Your task to perform on an android device: Open eBay Image 0: 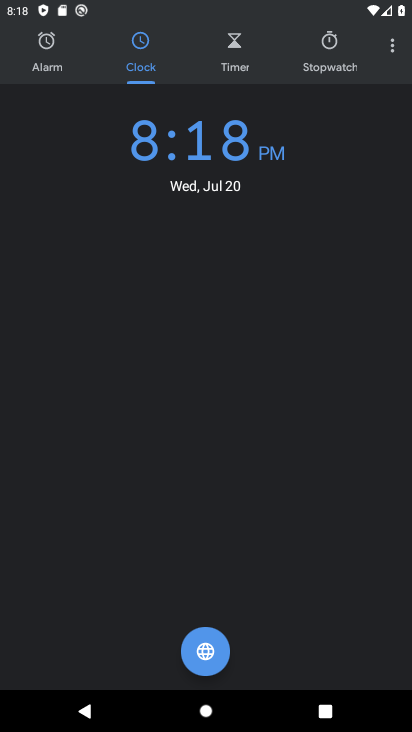
Step 0: press home button
Your task to perform on an android device: Open eBay Image 1: 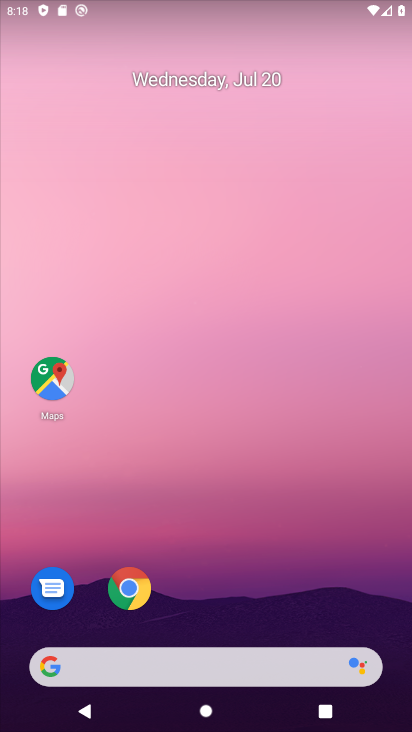
Step 1: click (135, 575)
Your task to perform on an android device: Open eBay Image 2: 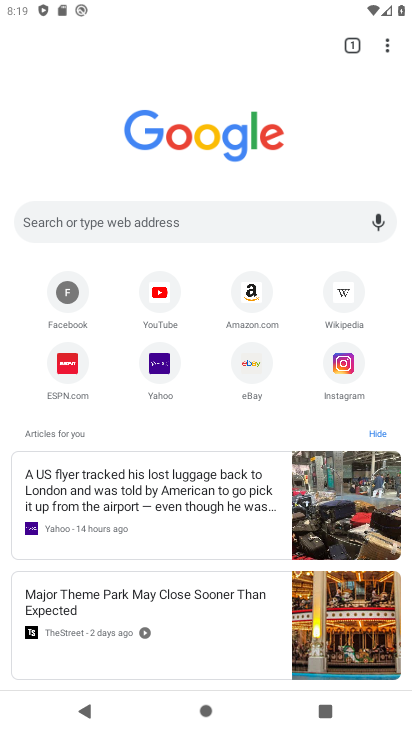
Step 2: click (243, 367)
Your task to perform on an android device: Open eBay Image 3: 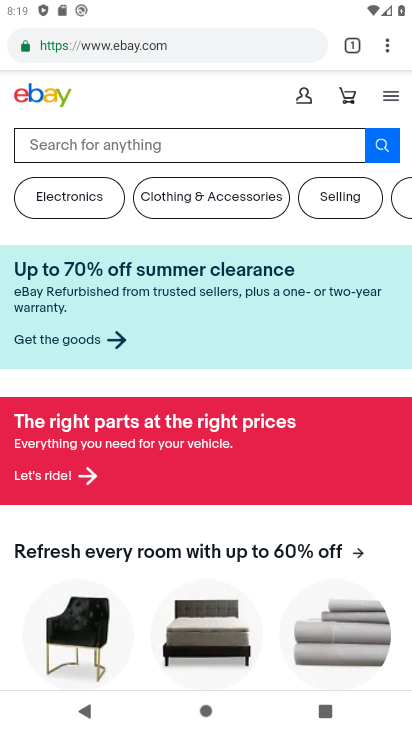
Step 3: task complete